Your task to perform on an android device: Open location settings Image 0: 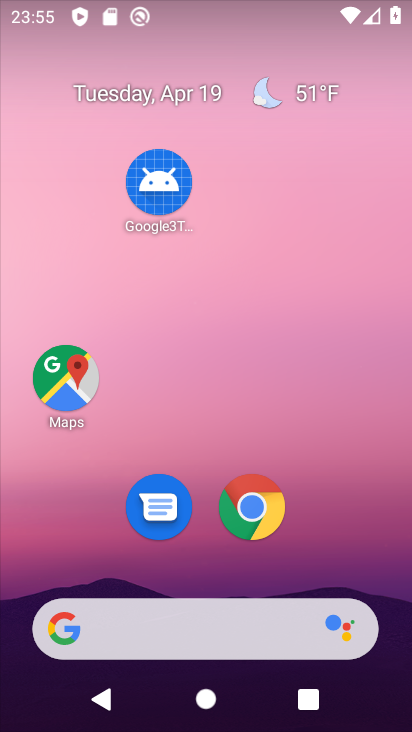
Step 0: drag from (209, 583) to (181, 0)
Your task to perform on an android device: Open location settings Image 1: 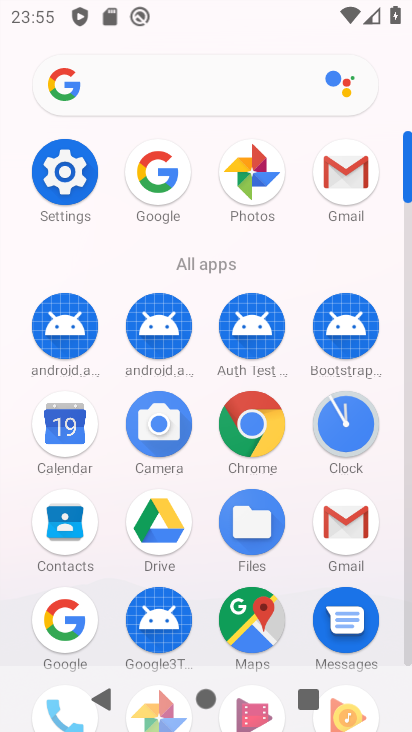
Step 1: click (66, 180)
Your task to perform on an android device: Open location settings Image 2: 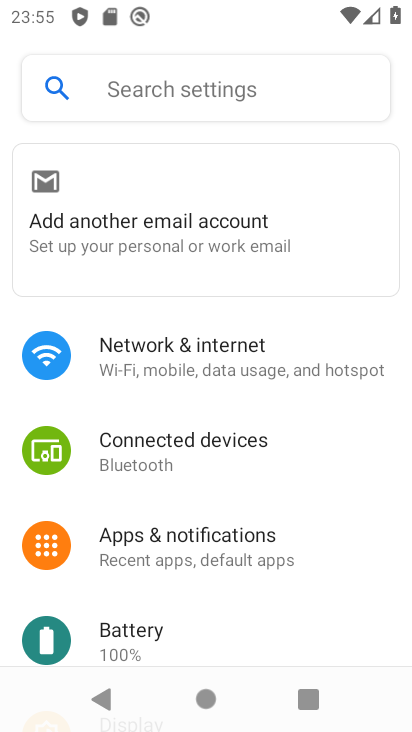
Step 2: drag from (264, 596) to (269, 62)
Your task to perform on an android device: Open location settings Image 3: 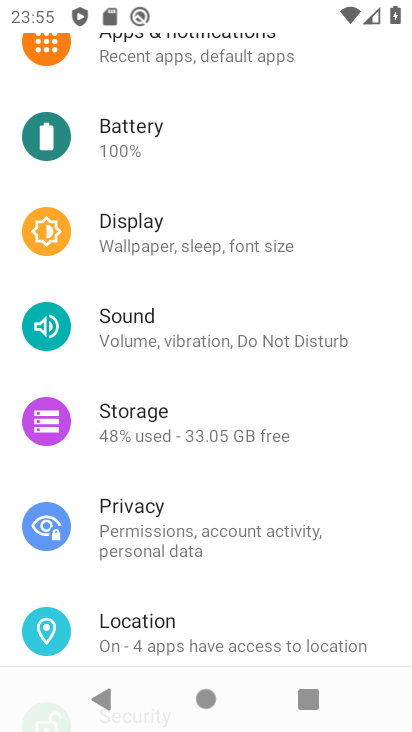
Step 3: drag from (192, 628) to (198, 242)
Your task to perform on an android device: Open location settings Image 4: 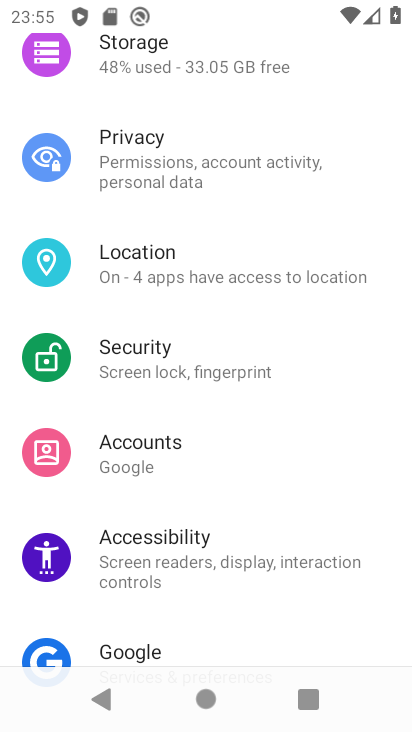
Step 4: click (136, 255)
Your task to perform on an android device: Open location settings Image 5: 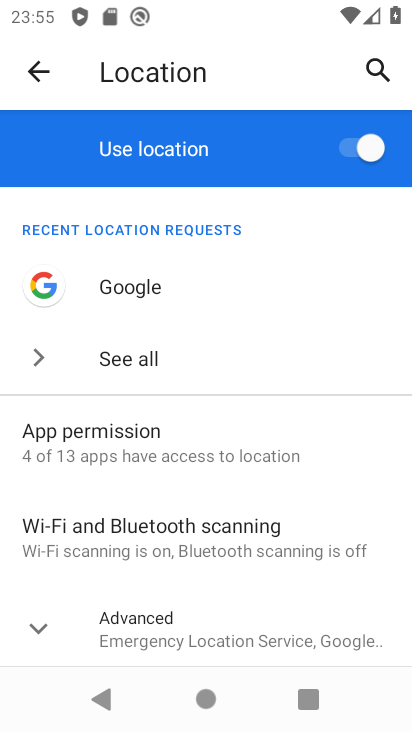
Step 5: task complete